Your task to perform on an android device: turn off sleep mode Image 0: 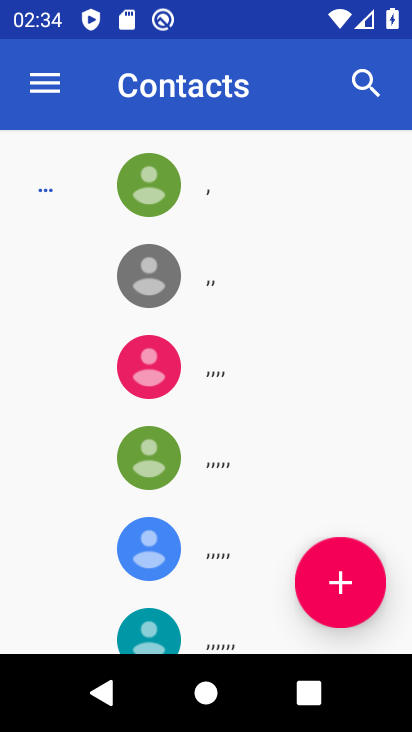
Step 0: press home button
Your task to perform on an android device: turn off sleep mode Image 1: 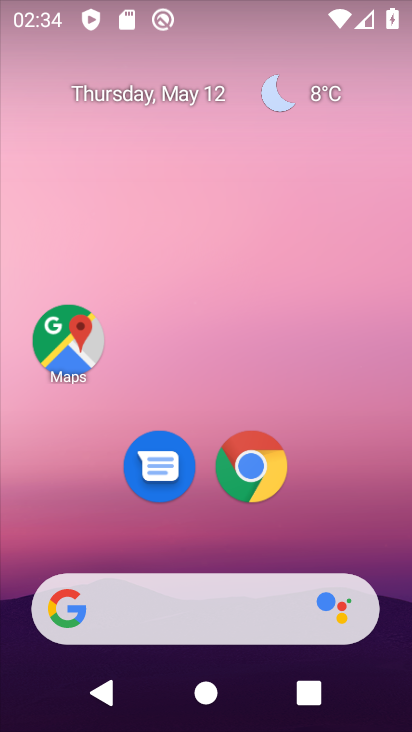
Step 1: drag from (365, 25) to (335, 468)
Your task to perform on an android device: turn off sleep mode Image 2: 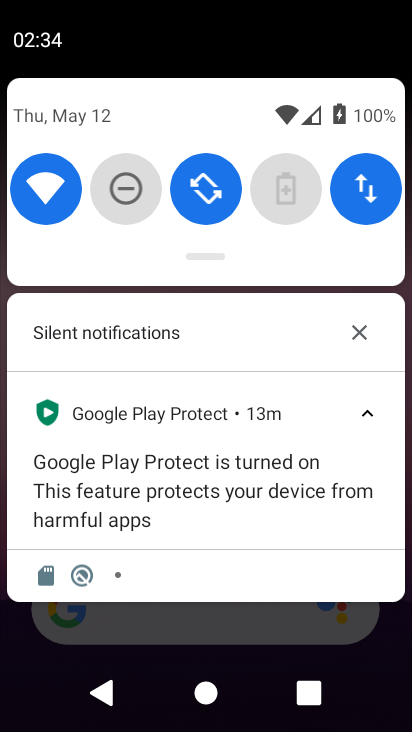
Step 2: drag from (214, 243) to (227, 596)
Your task to perform on an android device: turn off sleep mode Image 3: 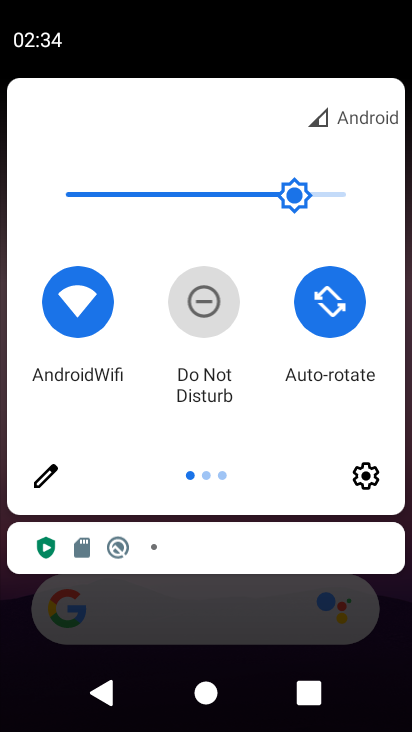
Step 3: click (48, 474)
Your task to perform on an android device: turn off sleep mode Image 4: 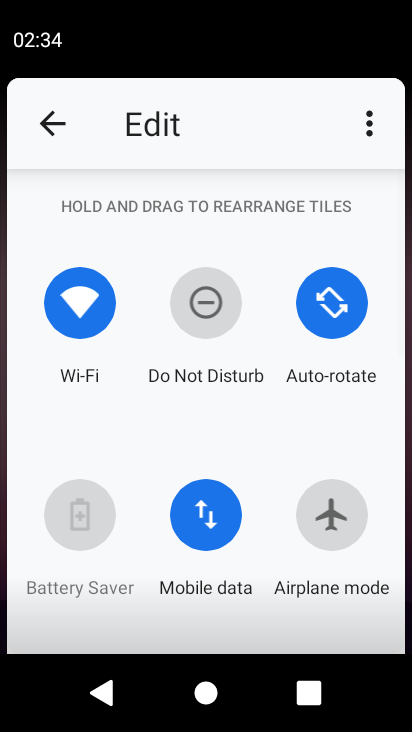
Step 4: task complete